Your task to perform on an android device: Go to network settings Image 0: 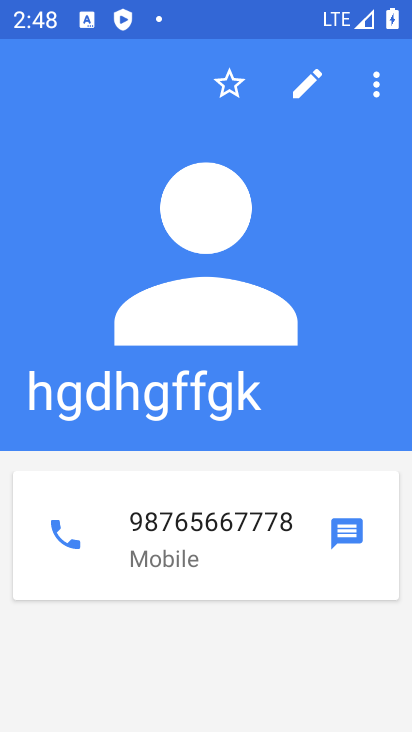
Step 0: press home button
Your task to perform on an android device: Go to network settings Image 1: 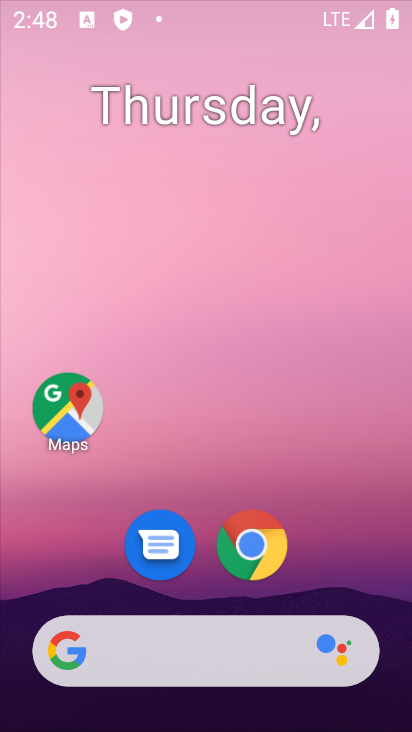
Step 1: drag from (297, 630) to (293, 101)
Your task to perform on an android device: Go to network settings Image 2: 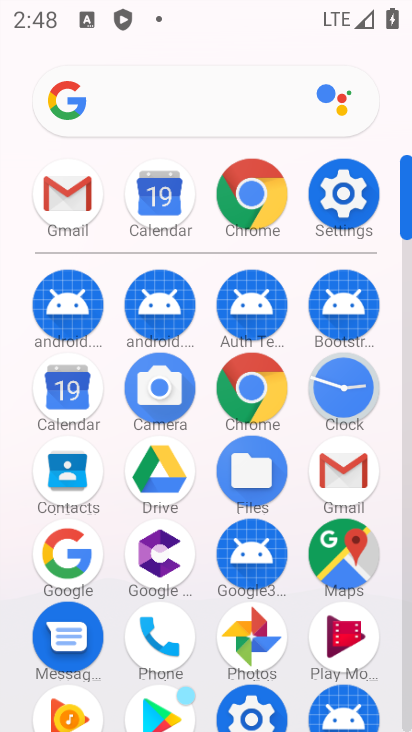
Step 2: click (337, 198)
Your task to perform on an android device: Go to network settings Image 3: 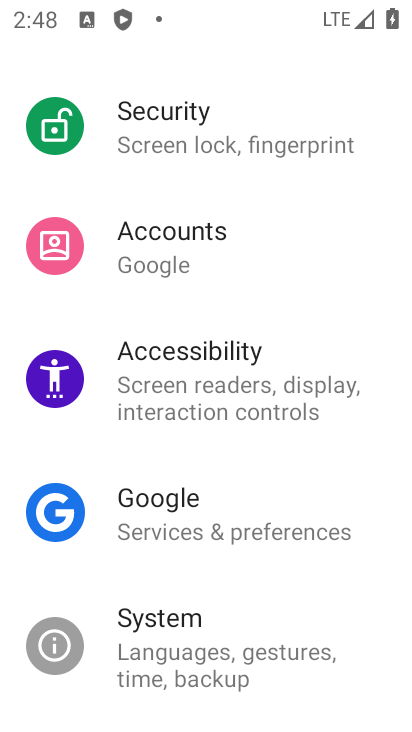
Step 3: click (344, 190)
Your task to perform on an android device: Go to network settings Image 4: 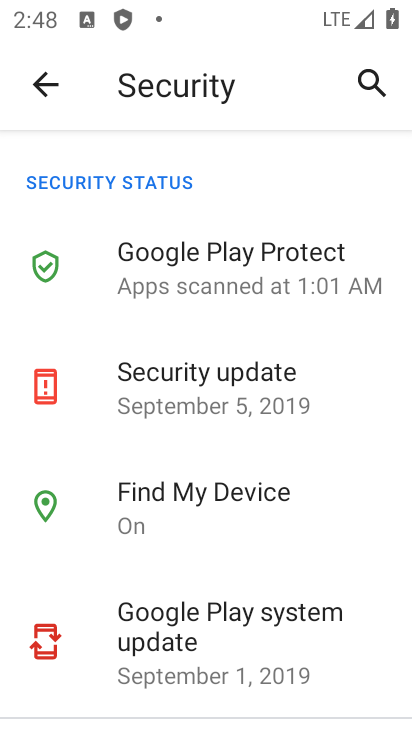
Step 4: press back button
Your task to perform on an android device: Go to network settings Image 5: 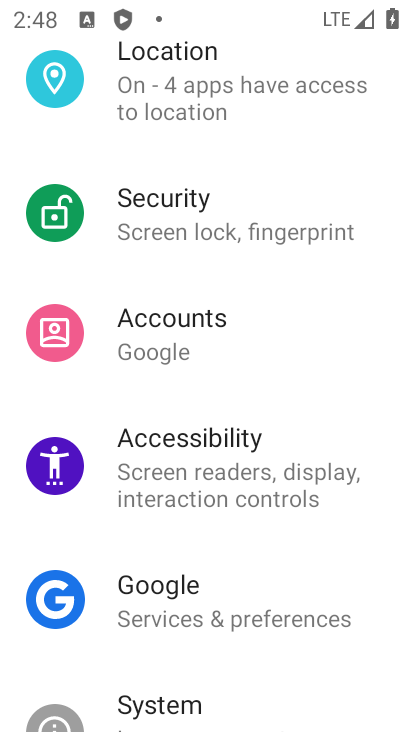
Step 5: drag from (246, 270) to (224, 726)
Your task to perform on an android device: Go to network settings Image 6: 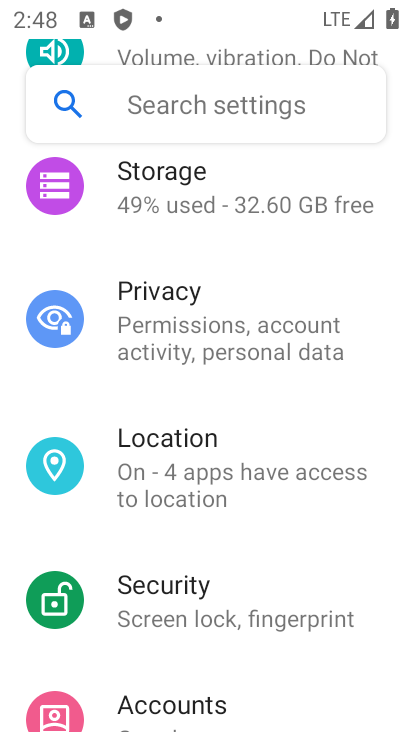
Step 6: drag from (303, 377) to (304, 698)
Your task to perform on an android device: Go to network settings Image 7: 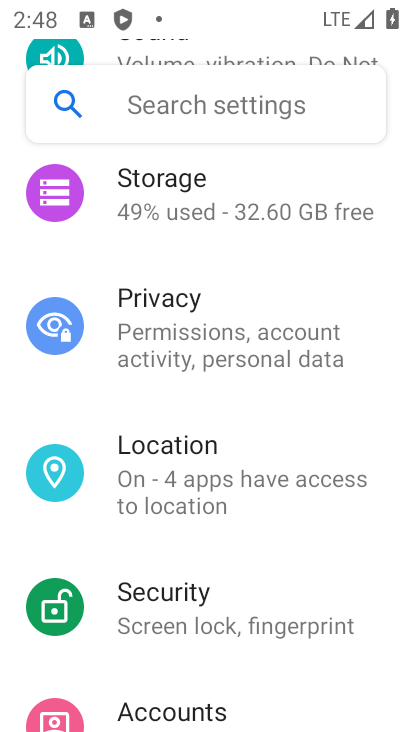
Step 7: drag from (293, 196) to (331, 721)
Your task to perform on an android device: Go to network settings Image 8: 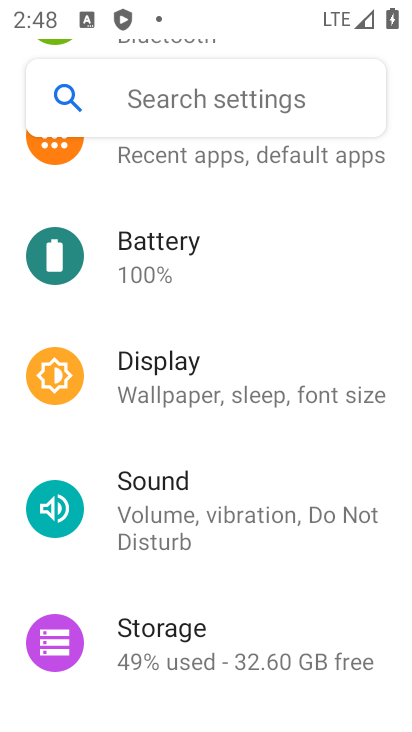
Step 8: drag from (226, 220) to (315, 698)
Your task to perform on an android device: Go to network settings Image 9: 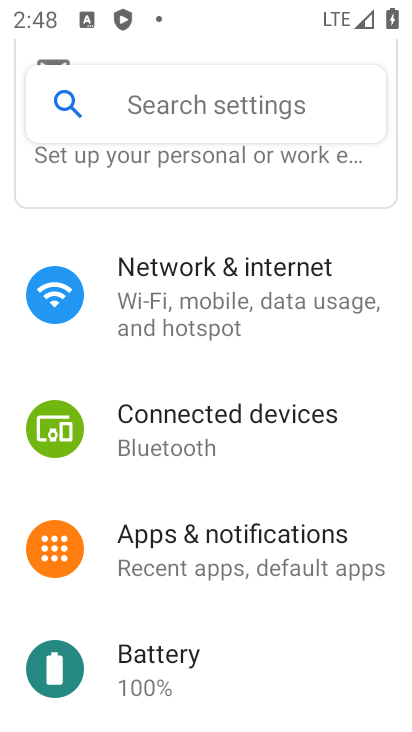
Step 9: click (275, 277)
Your task to perform on an android device: Go to network settings Image 10: 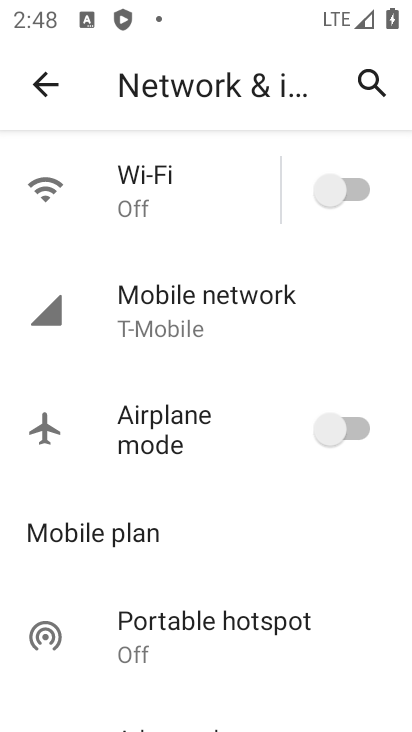
Step 10: task complete